Your task to perform on an android device: turn on translation in the chrome app Image 0: 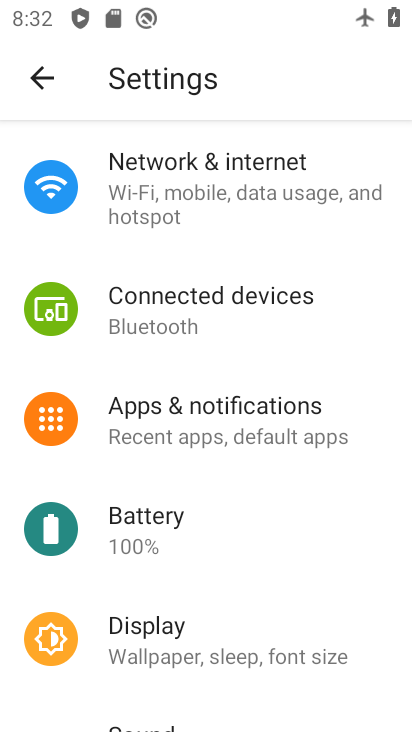
Step 0: press back button
Your task to perform on an android device: turn on translation in the chrome app Image 1: 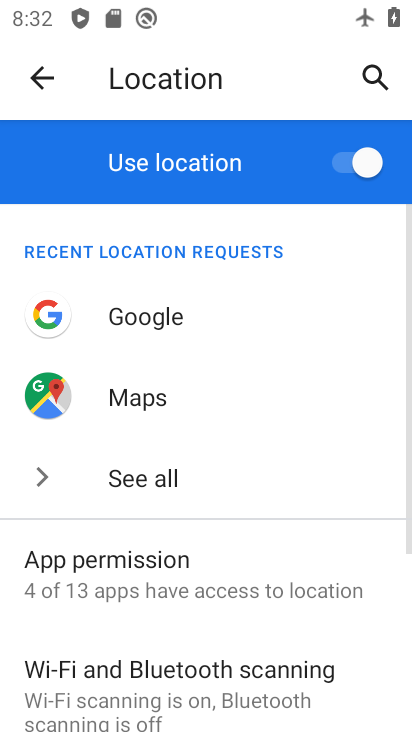
Step 1: press back button
Your task to perform on an android device: turn on translation in the chrome app Image 2: 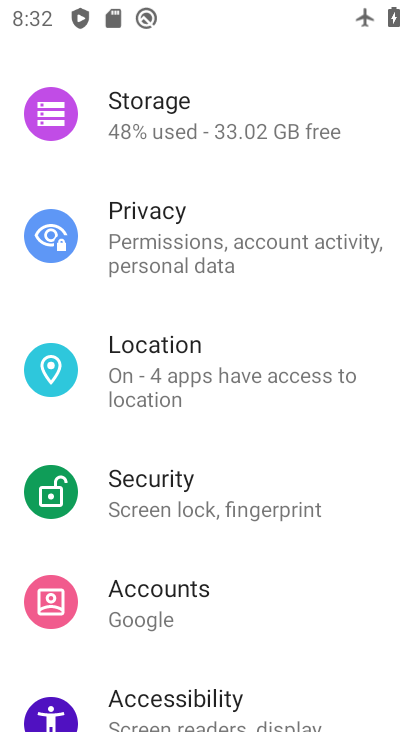
Step 2: press home button
Your task to perform on an android device: turn on translation in the chrome app Image 3: 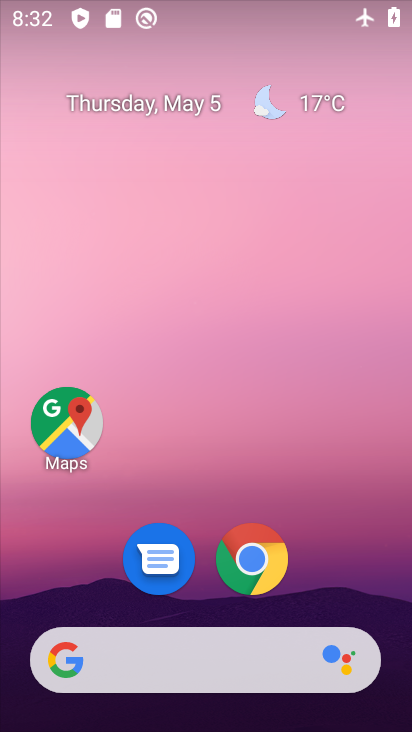
Step 3: drag from (185, 595) to (252, 99)
Your task to perform on an android device: turn on translation in the chrome app Image 4: 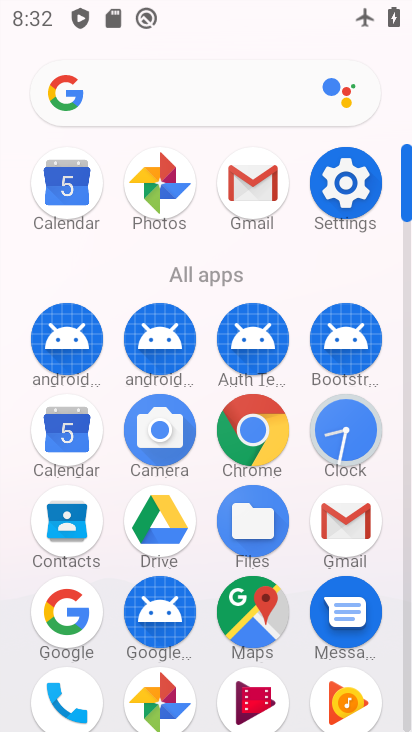
Step 4: click (250, 426)
Your task to perform on an android device: turn on translation in the chrome app Image 5: 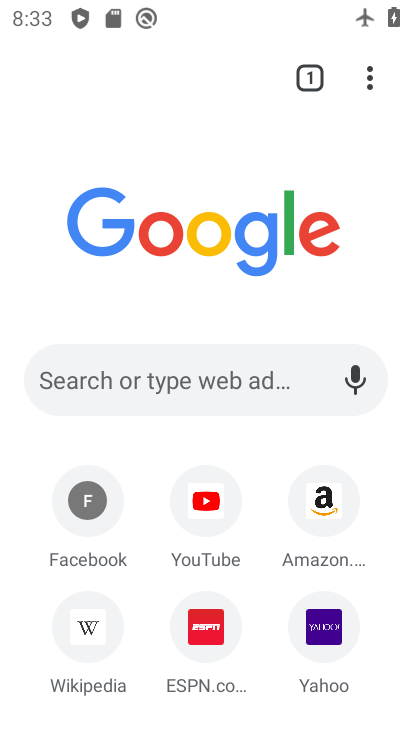
Step 5: drag from (373, 64) to (105, 603)
Your task to perform on an android device: turn on translation in the chrome app Image 6: 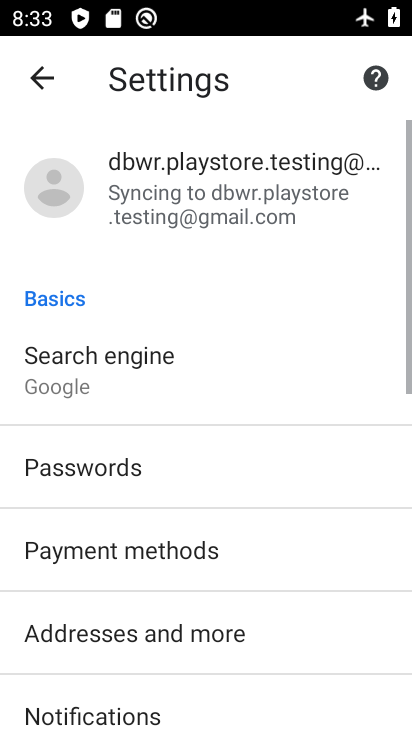
Step 6: drag from (114, 622) to (221, 81)
Your task to perform on an android device: turn on translation in the chrome app Image 7: 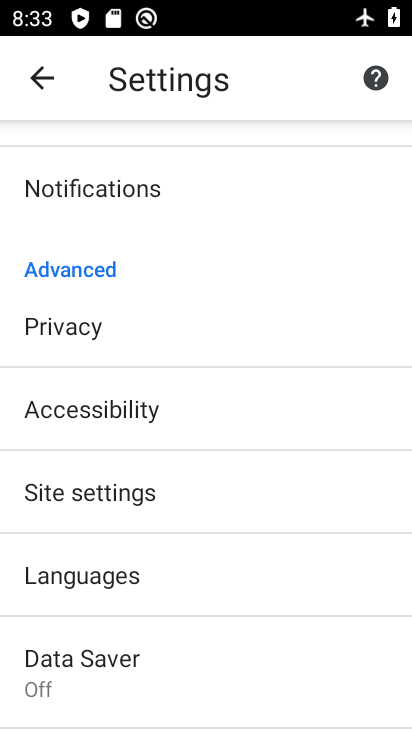
Step 7: click (107, 578)
Your task to perform on an android device: turn on translation in the chrome app Image 8: 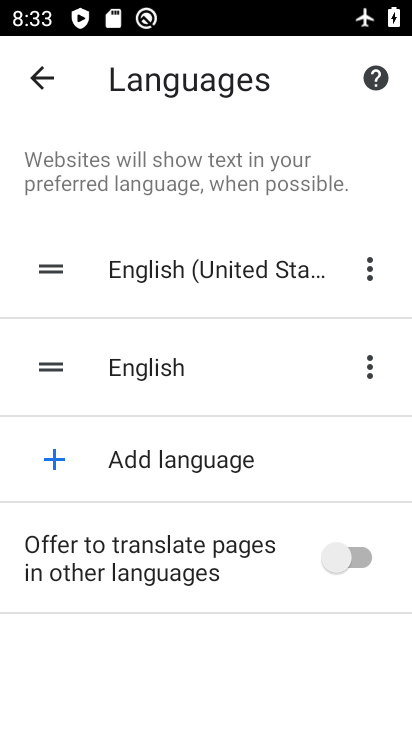
Step 8: click (360, 553)
Your task to perform on an android device: turn on translation in the chrome app Image 9: 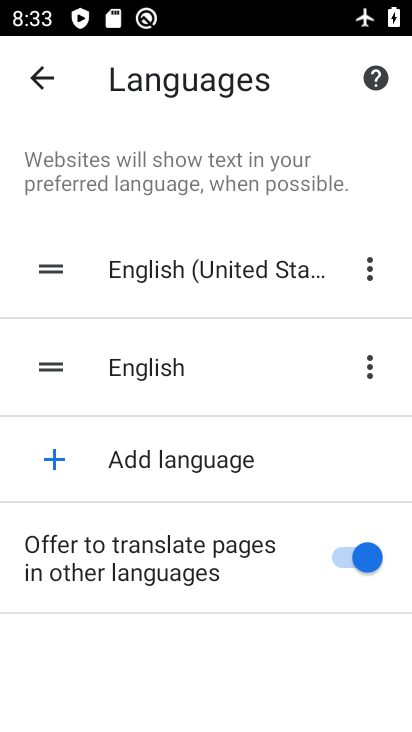
Step 9: task complete